Your task to perform on an android device: Open internet settings Image 0: 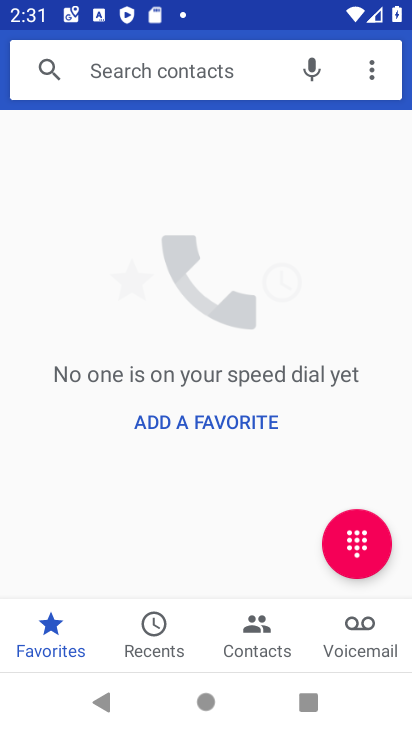
Step 0: press home button
Your task to perform on an android device: Open internet settings Image 1: 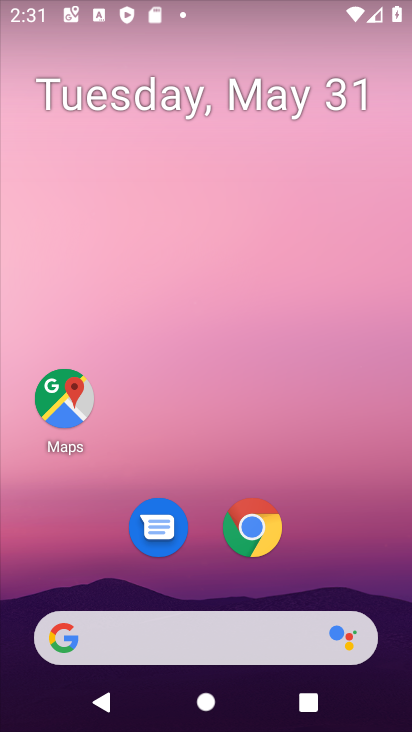
Step 1: click (326, 157)
Your task to perform on an android device: Open internet settings Image 2: 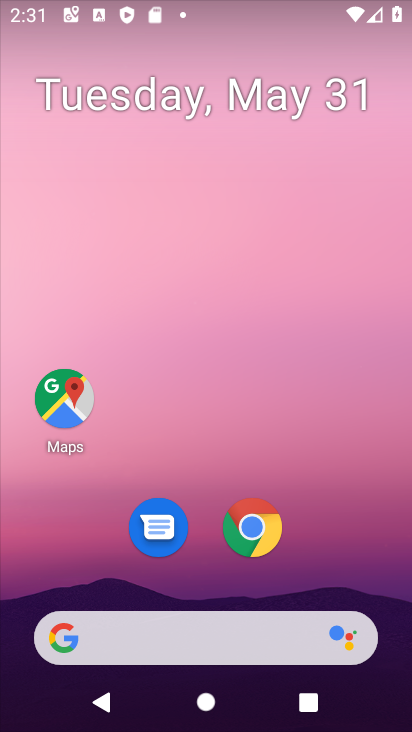
Step 2: drag from (391, 599) to (305, 105)
Your task to perform on an android device: Open internet settings Image 3: 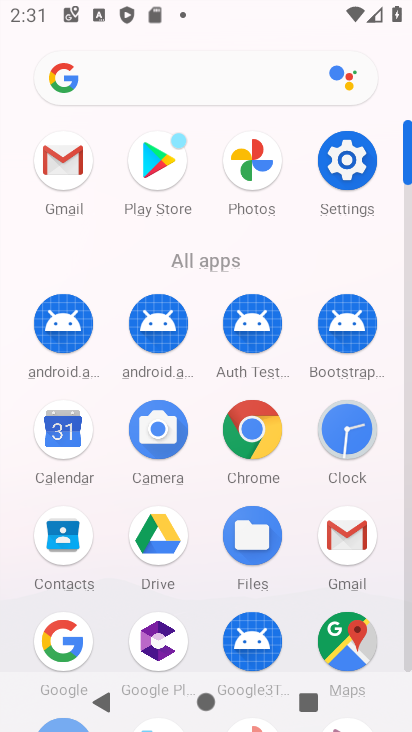
Step 3: click (407, 657)
Your task to perform on an android device: Open internet settings Image 4: 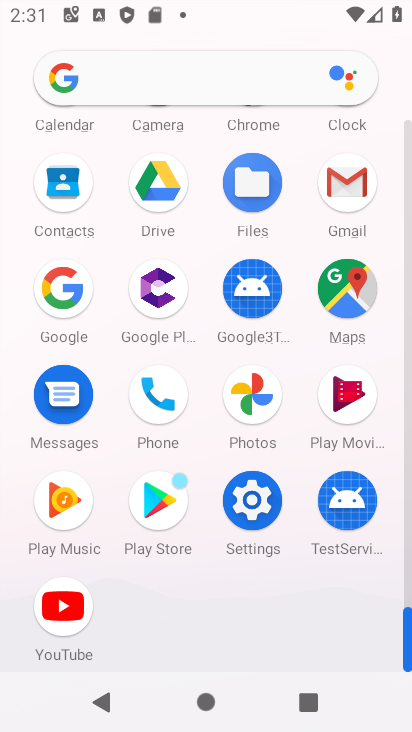
Step 4: click (251, 496)
Your task to perform on an android device: Open internet settings Image 5: 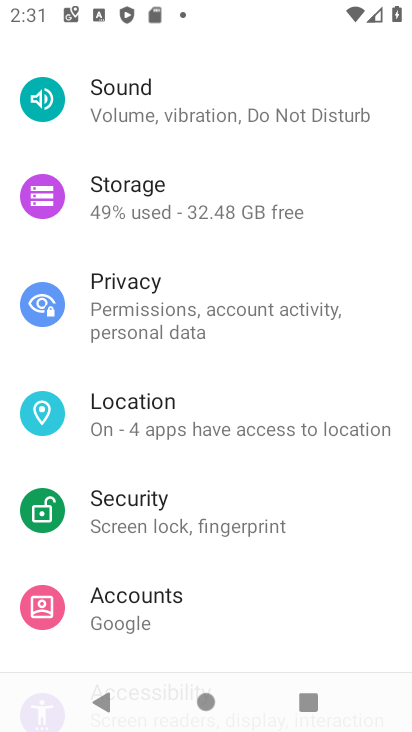
Step 5: drag from (346, 215) to (374, 544)
Your task to perform on an android device: Open internet settings Image 6: 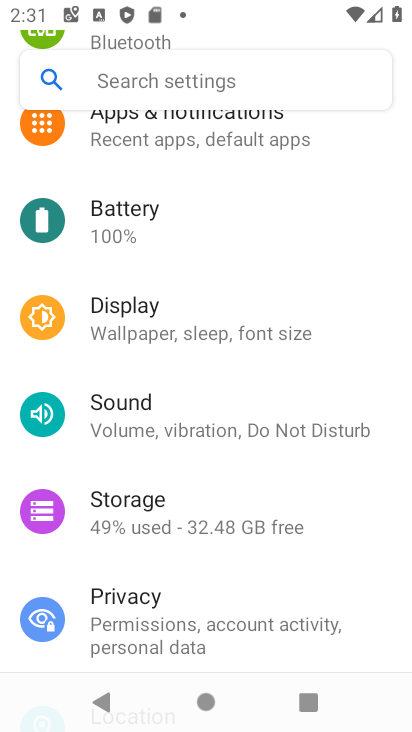
Step 6: drag from (352, 257) to (370, 582)
Your task to perform on an android device: Open internet settings Image 7: 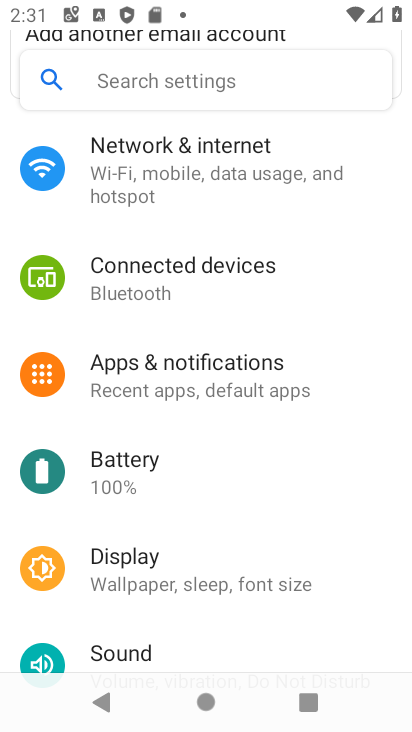
Step 7: click (145, 168)
Your task to perform on an android device: Open internet settings Image 8: 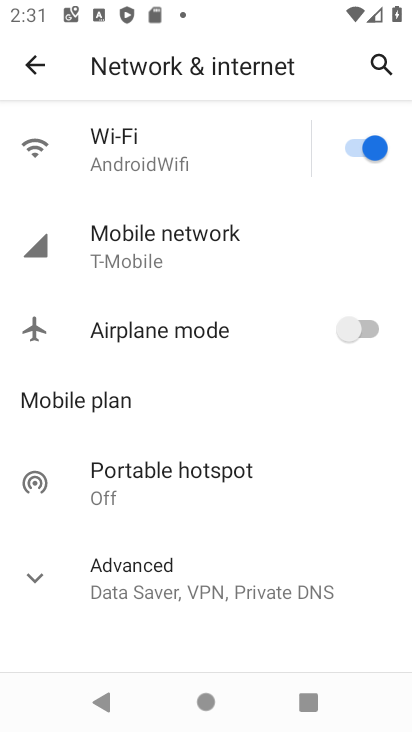
Step 8: click (132, 242)
Your task to perform on an android device: Open internet settings Image 9: 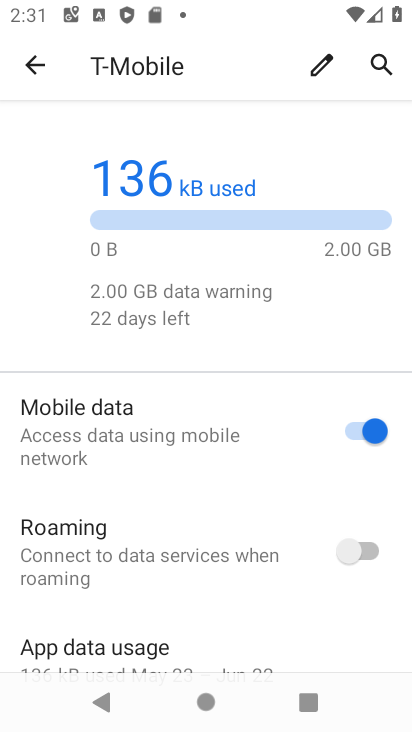
Step 9: task complete